Your task to perform on an android device: turn off notifications settings in the gmail app Image 0: 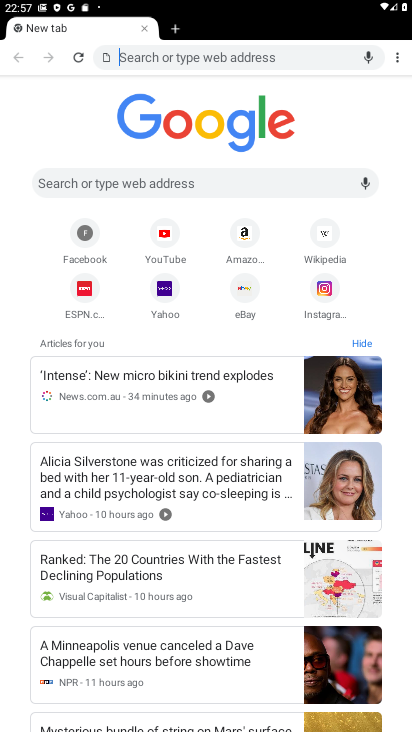
Step 0: press home button
Your task to perform on an android device: turn off notifications settings in the gmail app Image 1: 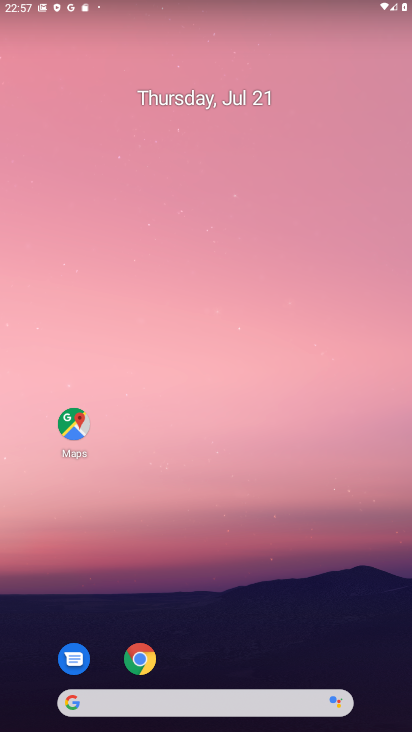
Step 1: drag from (216, 704) to (242, 46)
Your task to perform on an android device: turn off notifications settings in the gmail app Image 2: 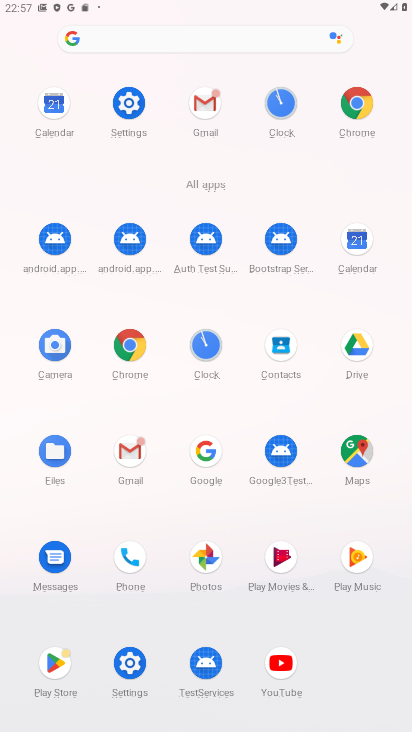
Step 2: click (207, 100)
Your task to perform on an android device: turn off notifications settings in the gmail app Image 3: 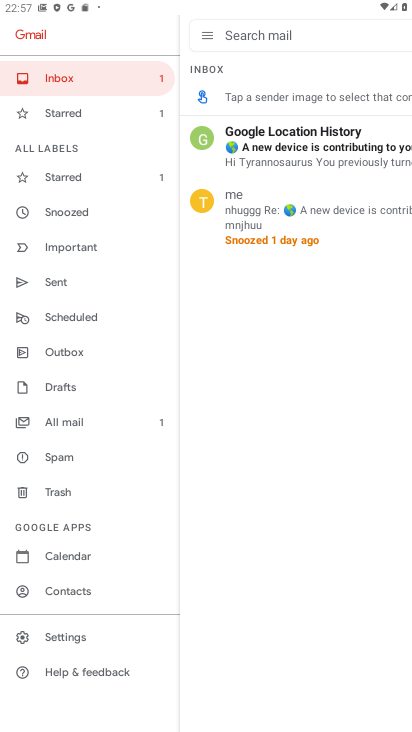
Step 3: click (69, 634)
Your task to perform on an android device: turn off notifications settings in the gmail app Image 4: 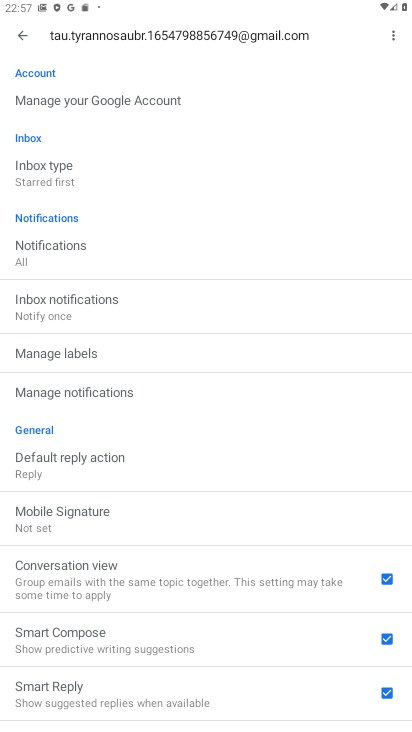
Step 4: click (73, 395)
Your task to perform on an android device: turn off notifications settings in the gmail app Image 5: 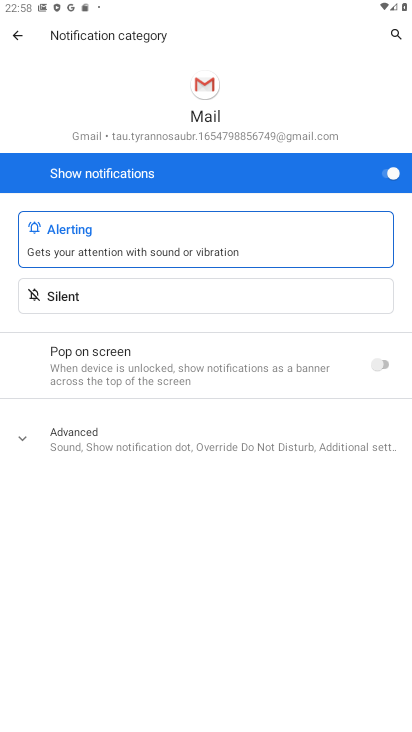
Step 5: click (385, 174)
Your task to perform on an android device: turn off notifications settings in the gmail app Image 6: 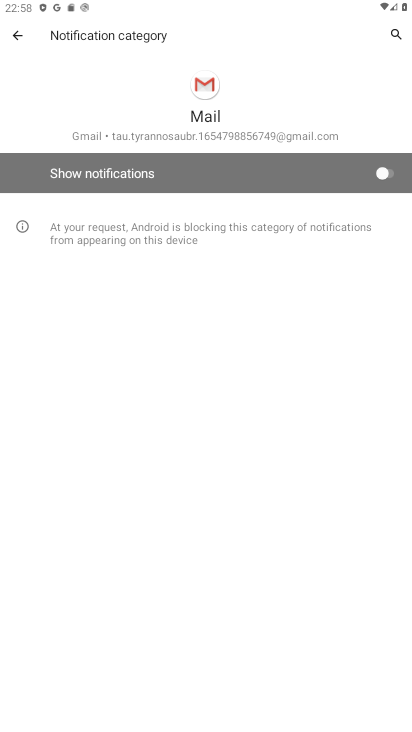
Step 6: task complete